Your task to perform on an android device: open a bookmark in the chrome app Image 0: 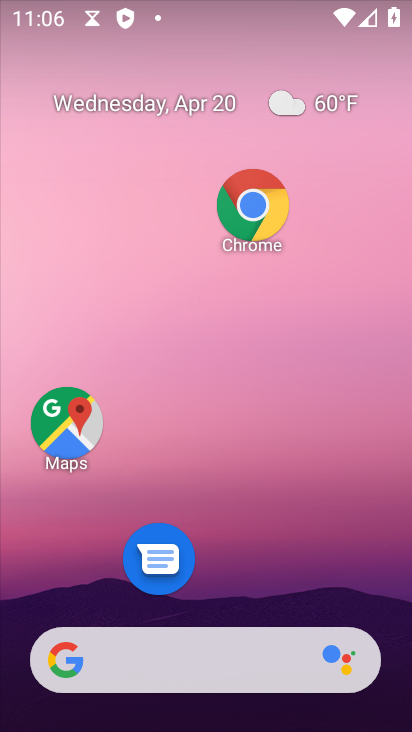
Step 0: drag from (358, 492) to (333, 24)
Your task to perform on an android device: open a bookmark in the chrome app Image 1: 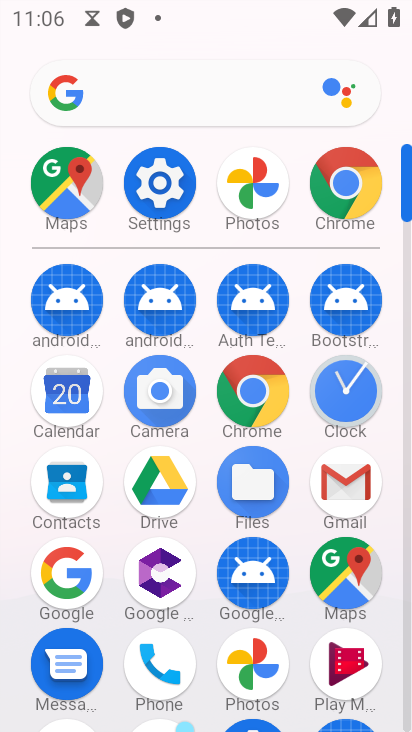
Step 1: click (260, 409)
Your task to perform on an android device: open a bookmark in the chrome app Image 2: 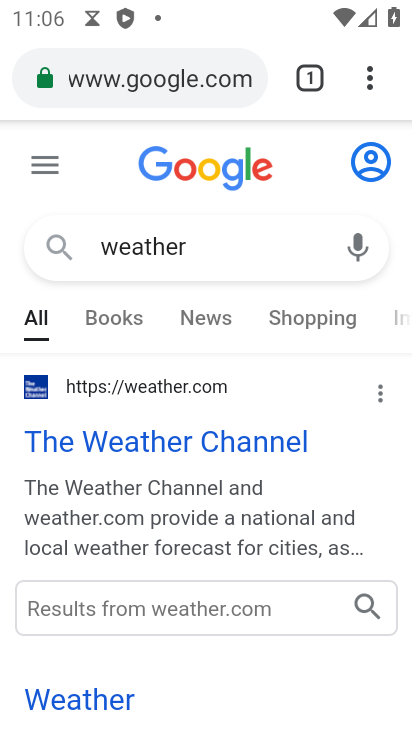
Step 2: task complete